Your task to perform on an android device: change the clock style Image 0: 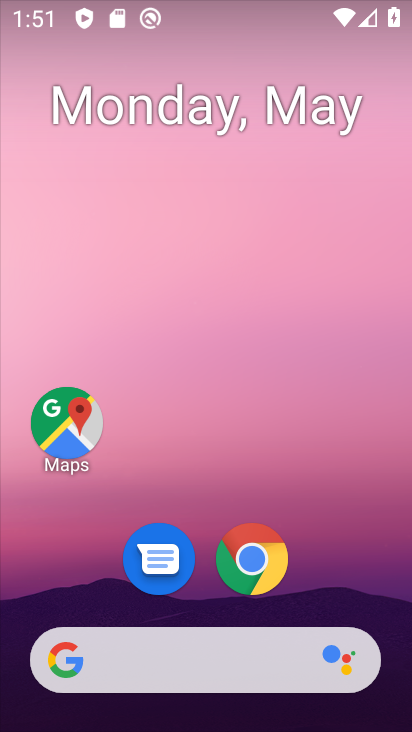
Step 0: drag from (376, 582) to (385, 2)
Your task to perform on an android device: change the clock style Image 1: 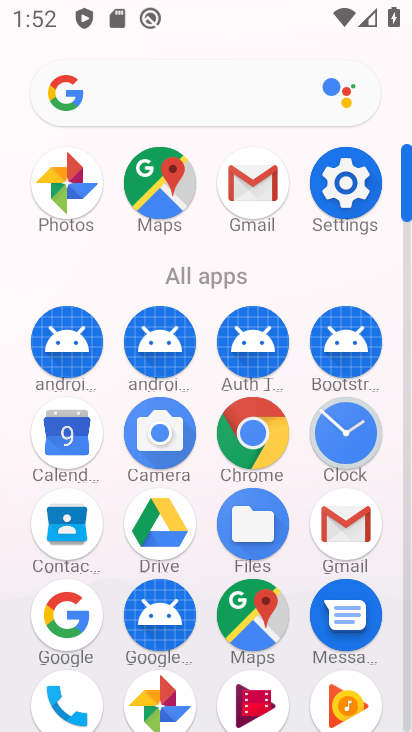
Step 1: click (348, 430)
Your task to perform on an android device: change the clock style Image 2: 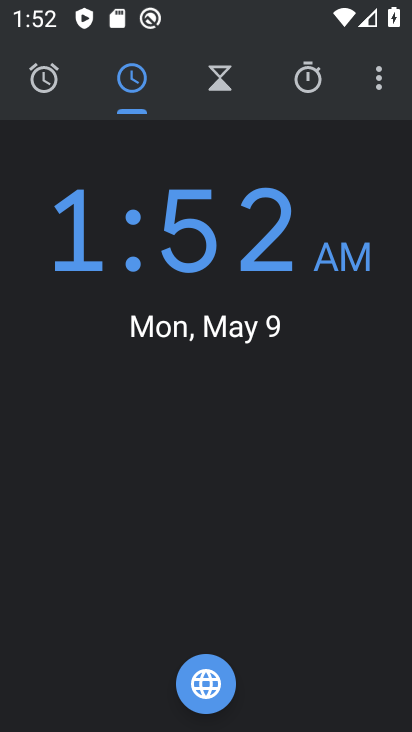
Step 2: click (377, 84)
Your task to perform on an android device: change the clock style Image 3: 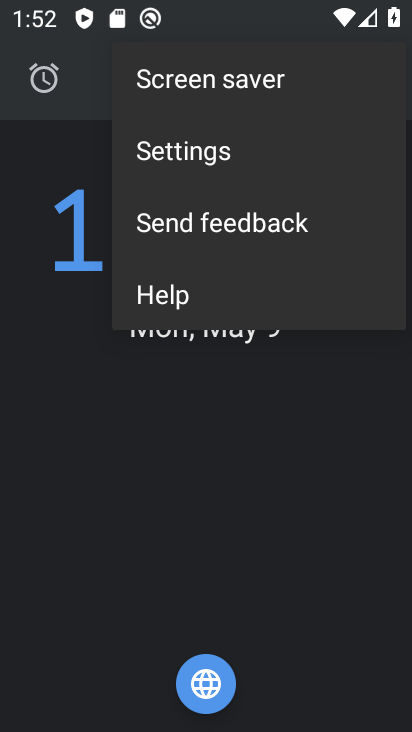
Step 3: click (198, 162)
Your task to perform on an android device: change the clock style Image 4: 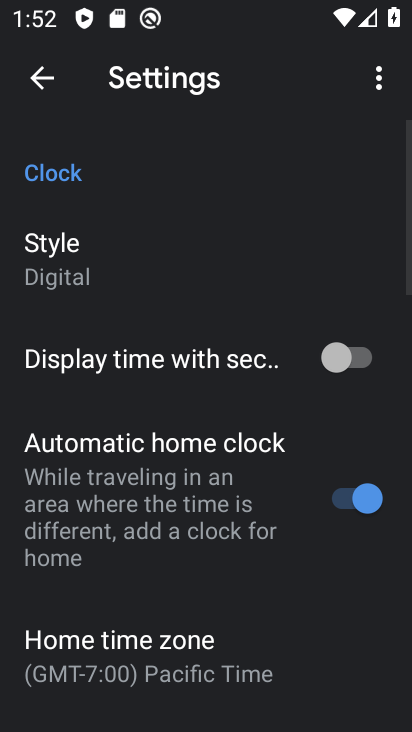
Step 4: click (58, 280)
Your task to perform on an android device: change the clock style Image 5: 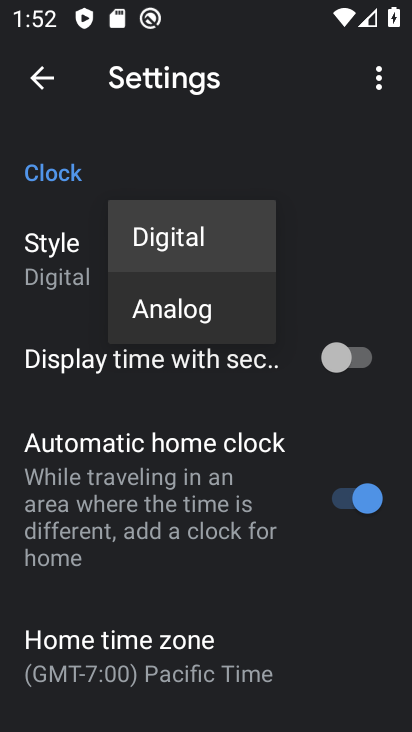
Step 5: click (174, 309)
Your task to perform on an android device: change the clock style Image 6: 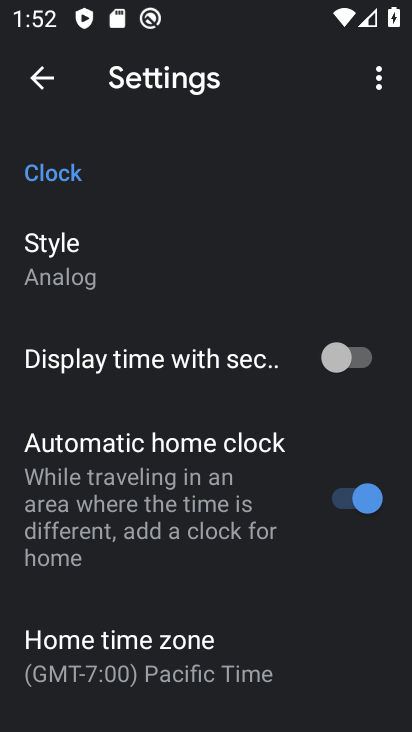
Step 6: task complete